Your task to perform on an android device: What's US dollar exchange rate against the Chinese Yuan? Image 0: 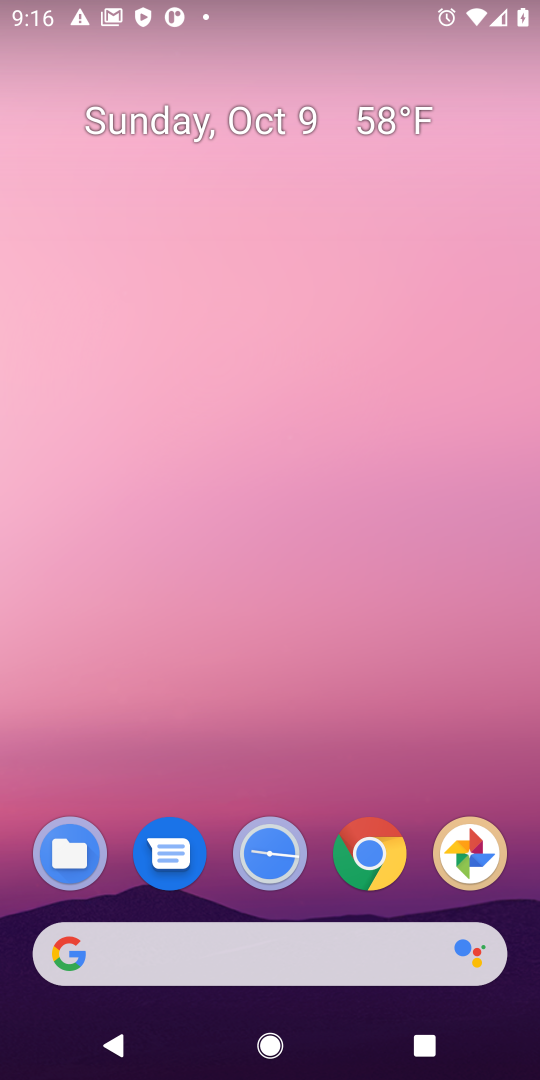
Step 0: click (388, 868)
Your task to perform on an android device: What's US dollar exchange rate against the Chinese Yuan? Image 1: 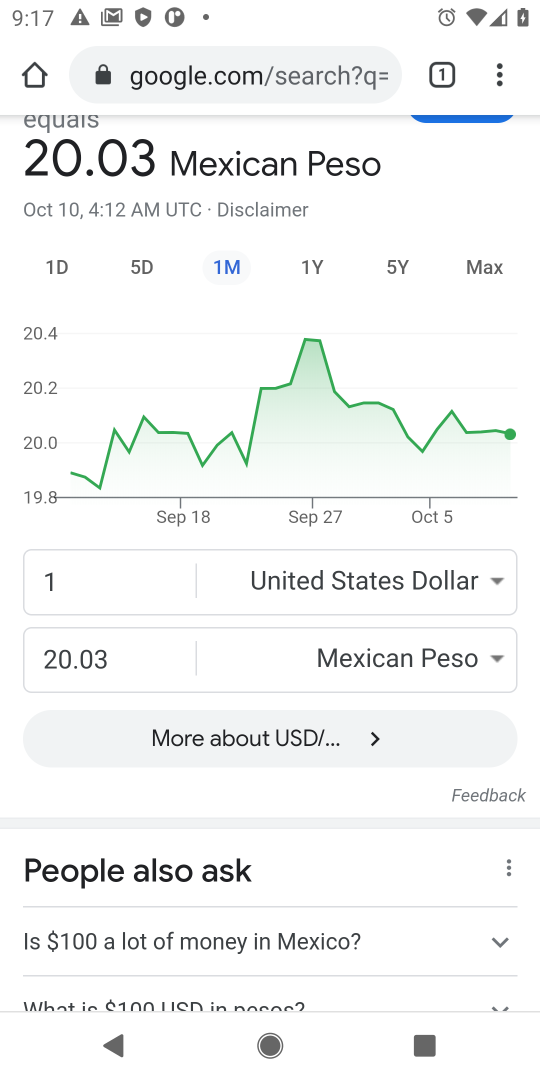
Step 1: click (237, 85)
Your task to perform on an android device: What's US dollar exchange rate against the Chinese Yuan? Image 2: 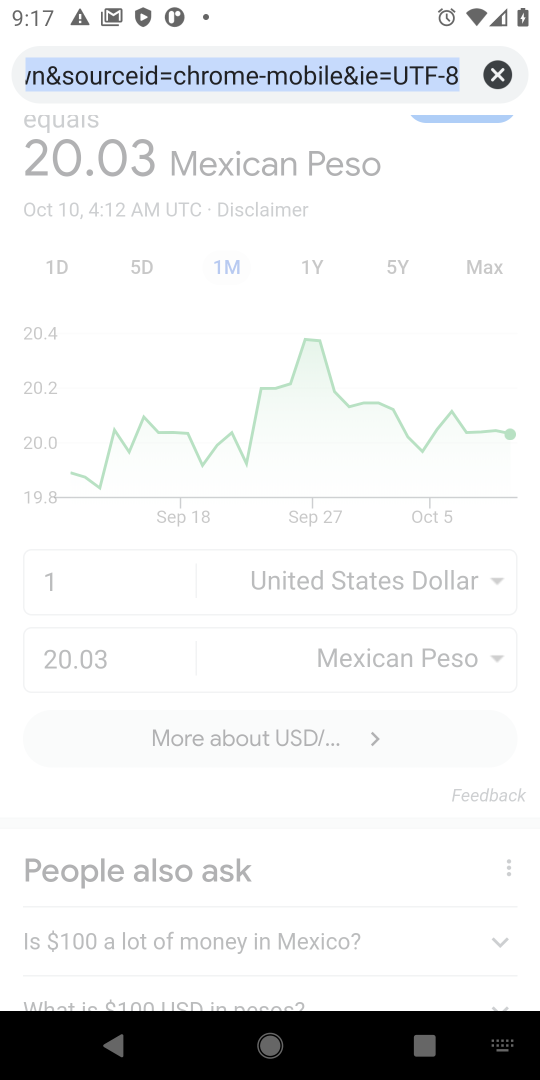
Step 2: type "usd to yuan"
Your task to perform on an android device: What's US dollar exchange rate against the Chinese Yuan? Image 3: 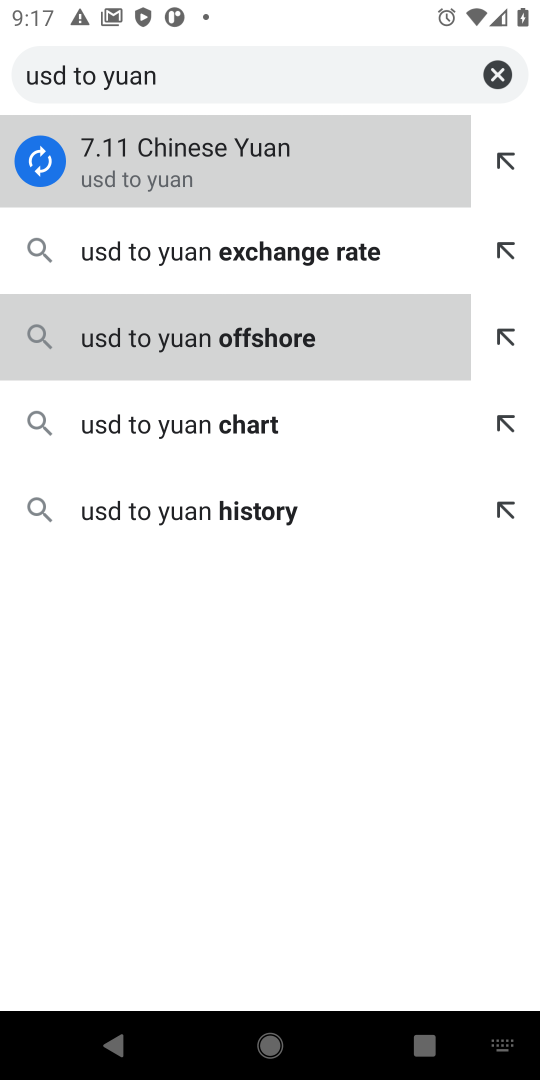
Step 3: click (227, 176)
Your task to perform on an android device: What's US dollar exchange rate against the Chinese Yuan? Image 4: 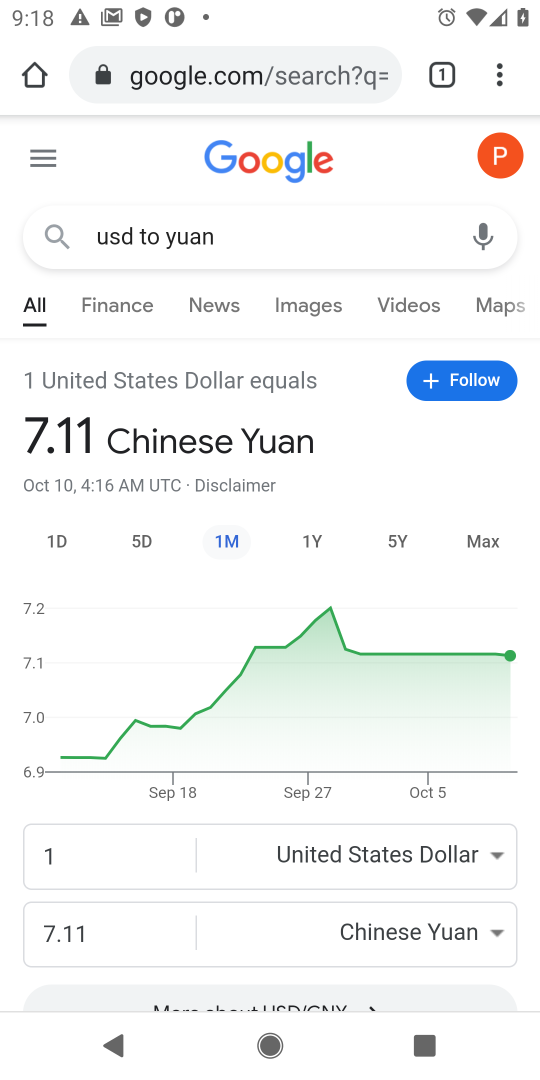
Step 4: task complete